Your task to perform on an android device: toggle improve location accuracy Image 0: 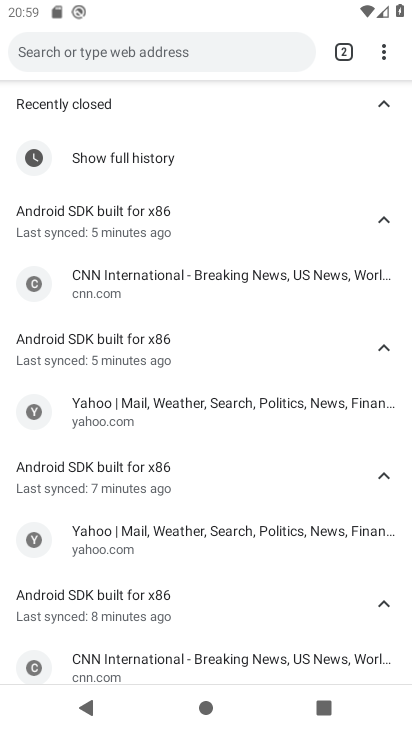
Step 0: press home button
Your task to perform on an android device: toggle improve location accuracy Image 1: 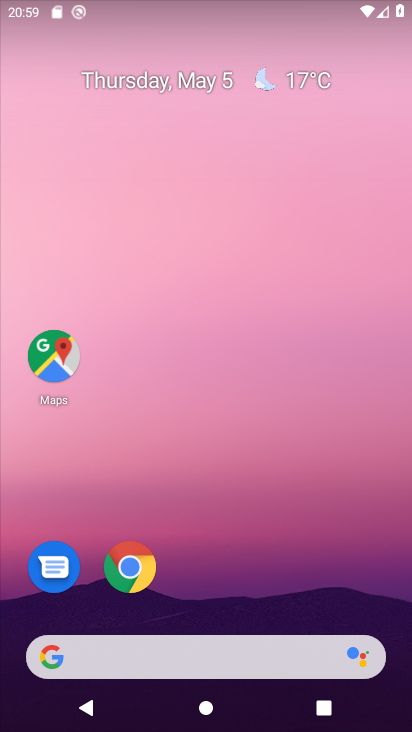
Step 1: drag from (226, 511) to (305, 37)
Your task to perform on an android device: toggle improve location accuracy Image 2: 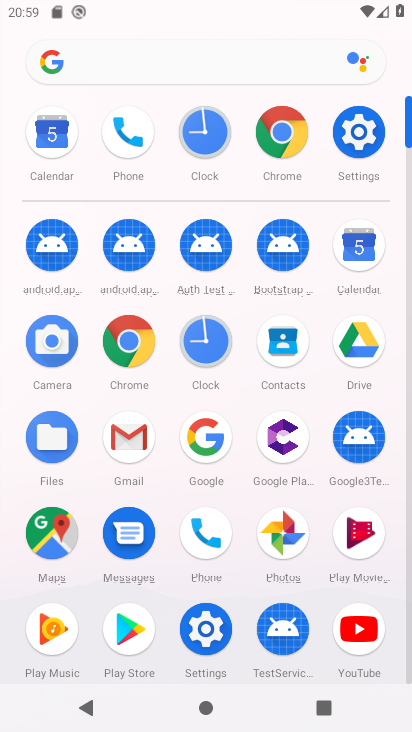
Step 2: click (361, 135)
Your task to perform on an android device: toggle improve location accuracy Image 3: 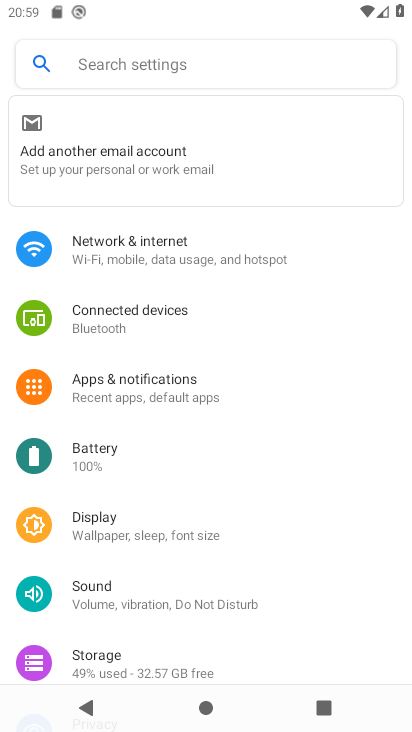
Step 3: drag from (237, 573) to (247, 188)
Your task to perform on an android device: toggle improve location accuracy Image 4: 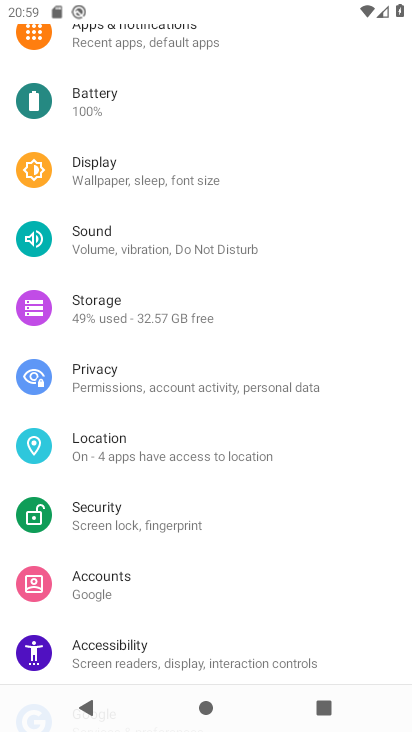
Step 4: click (191, 440)
Your task to perform on an android device: toggle improve location accuracy Image 5: 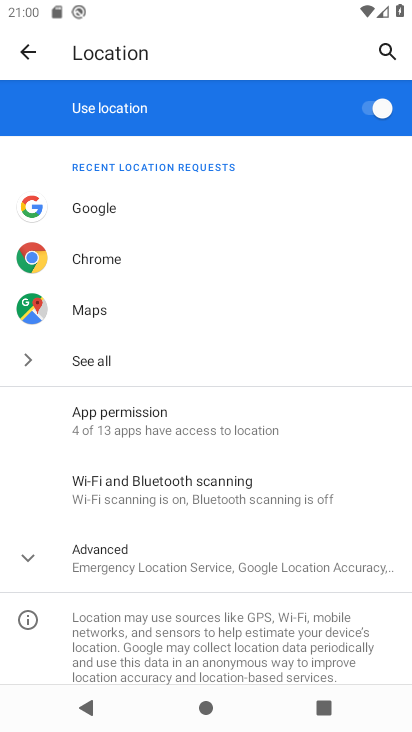
Step 5: click (31, 553)
Your task to perform on an android device: toggle improve location accuracy Image 6: 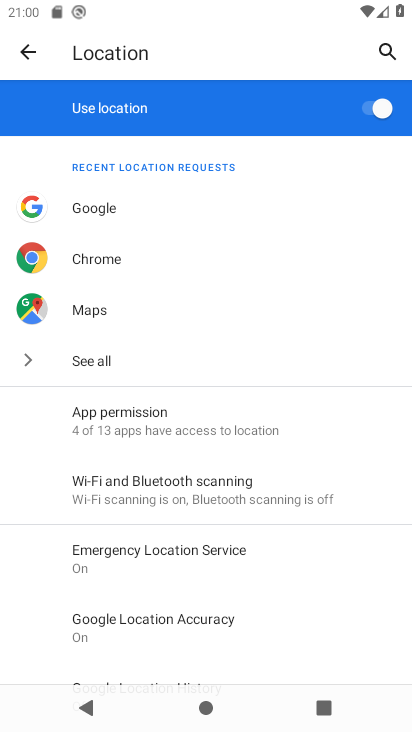
Step 6: drag from (271, 582) to (299, 391)
Your task to perform on an android device: toggle improve location accuracy Image 7: 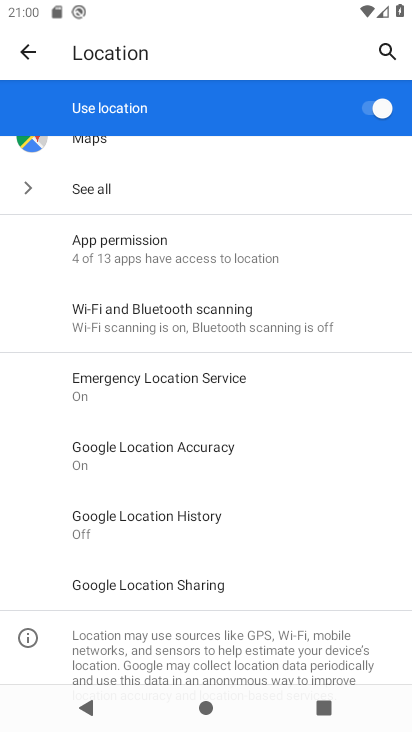
Step 7: click (213, 464)
Your task to perform on an android device: toggle improve location accuracy Image 8: 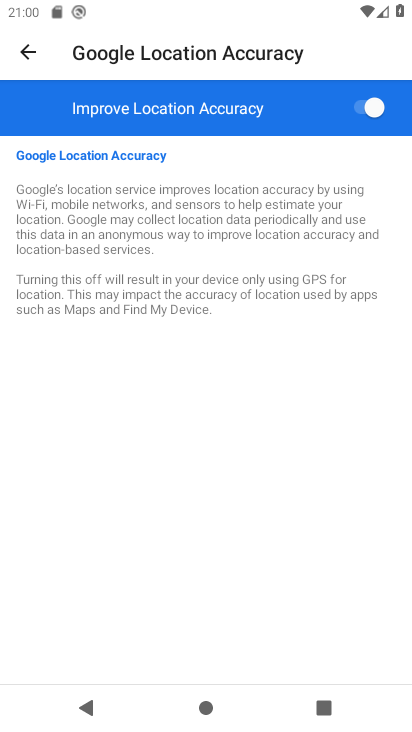
Step 8: click (362, 104)
Your task to perform on an android device: toggle improve location accuracy Image 9: 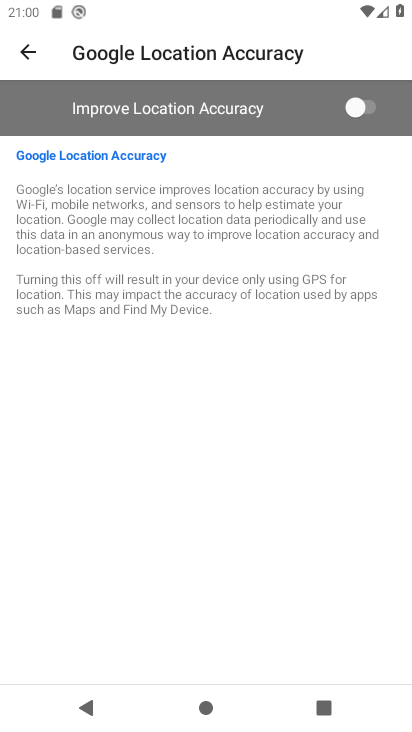
Step 9: task complete